Your task to perform on an android device: open a bookmark in the chrome app Image 0: 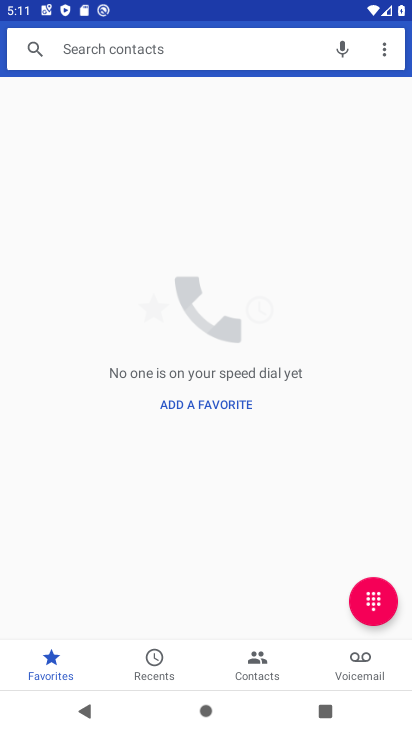
Step 0: press back button
Your task to perform on an android device: open a bookmark in the chrome app Image 1: 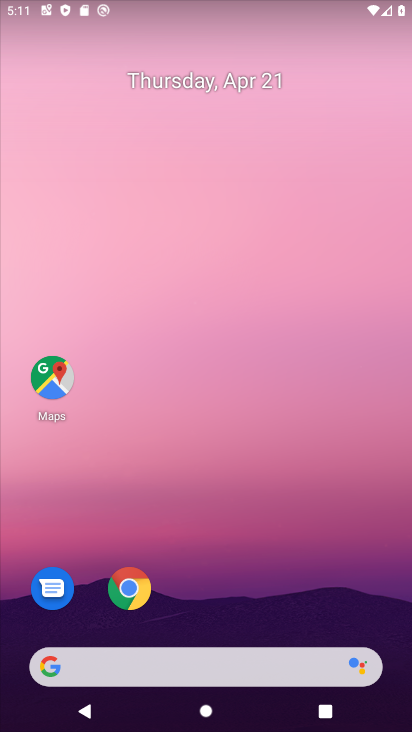
Step 1: click (127, 577)
Your task to perform on an android device: open a bookmark in the chrome app Image 2: 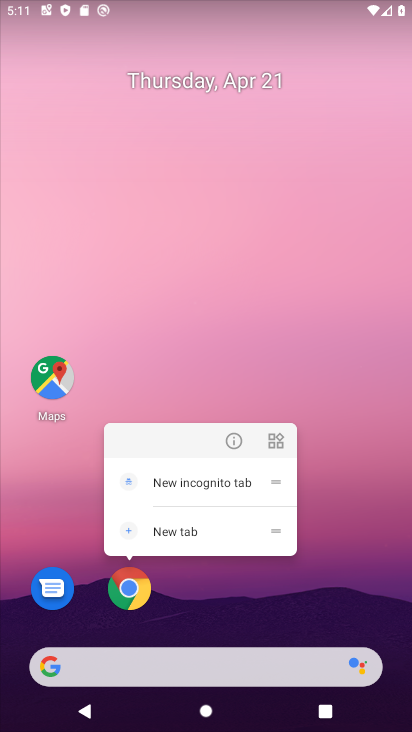
Step 2: click (132, 582)
Your task to perform on an android device: open a bookmark in the chrome app Image 3: 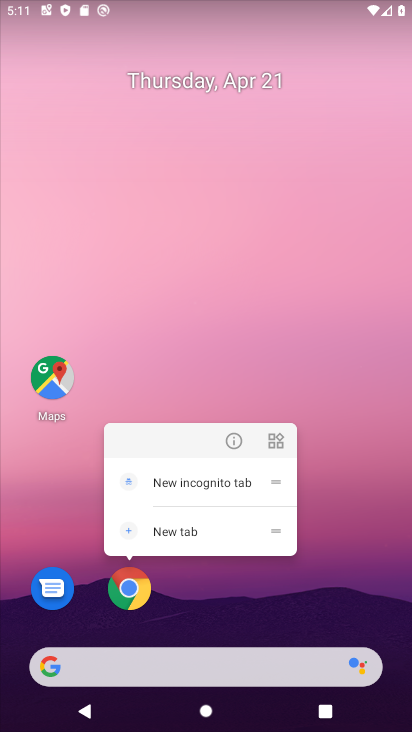
Step 3: click (129, 593)
Your task to perform on an android device: open a bookmark in the chrome app Image 4: 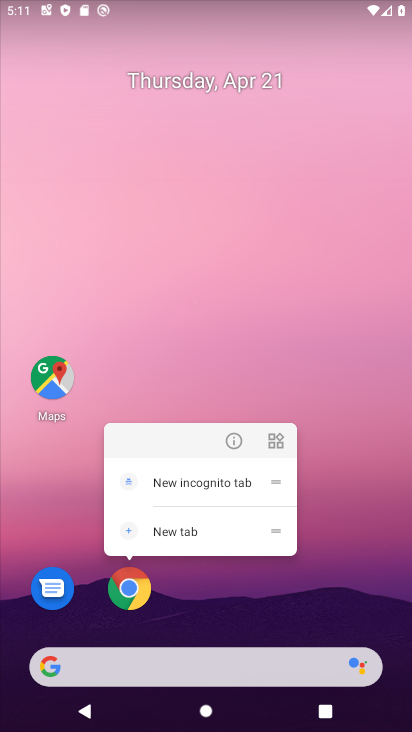
Step 4: click (130, 593)
Your task to perform on an android device: open a bookmark in the chrome app Image 5: 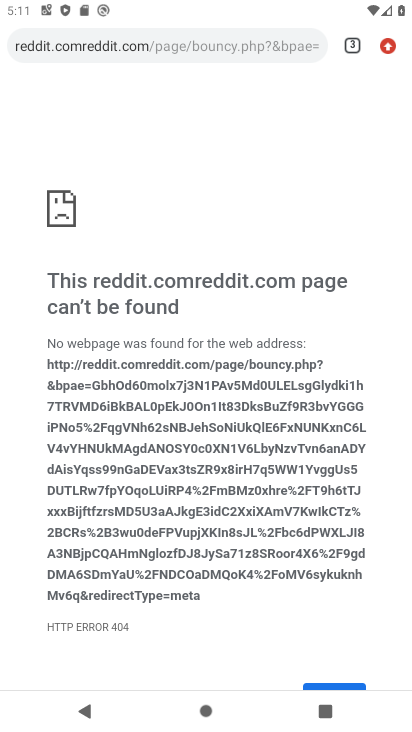
Step 5: task complete